Your task to perform on an android device: see tabs open on other devices in the chrome app Image 0: 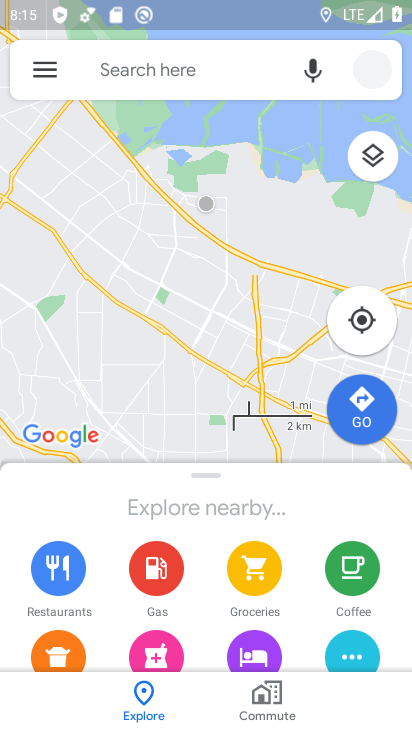
Step 0: press home button
Your task to perform on an android device: see tabs open on other devices in the chrome app Image 1: 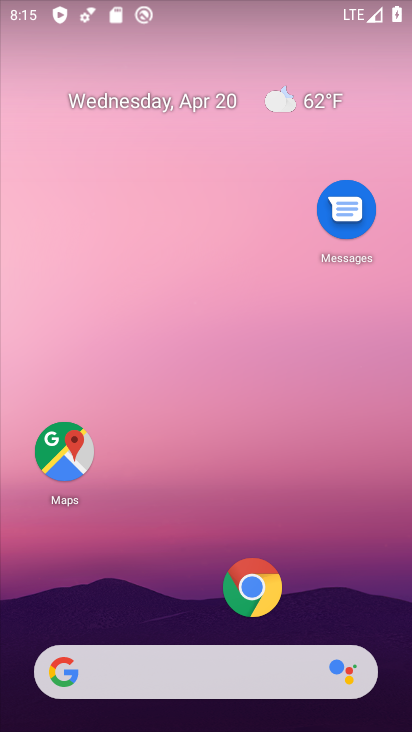
Step 1: drag from (193, 667) to (306, 238)
Your task to perform on an android device: see tabs open on other devices in the chrome app Image 2: 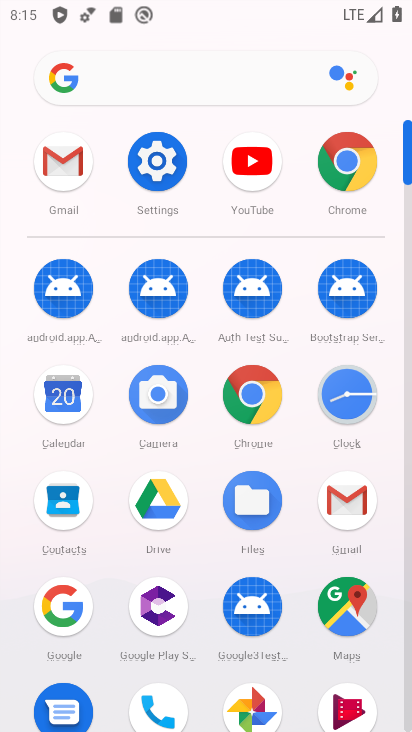
Step 2: click (349, 175)
Your task to perform on an android device: see tabs open on other devices in the chrome app Image 3: 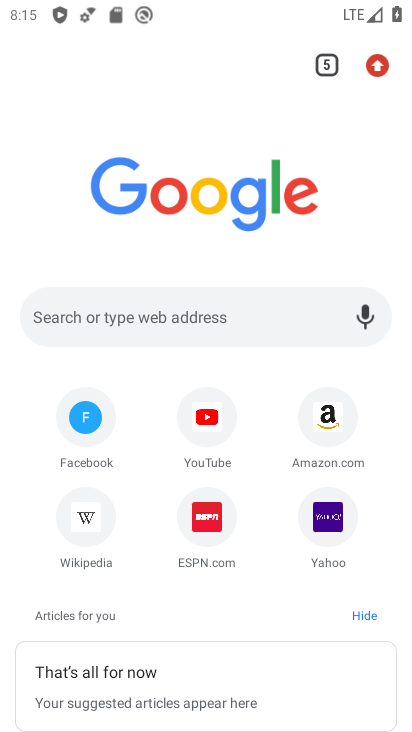
Step 3: click (380, 75)
Your task to perform on an android device: see tabs open on other devices in the chrome app Image 4: 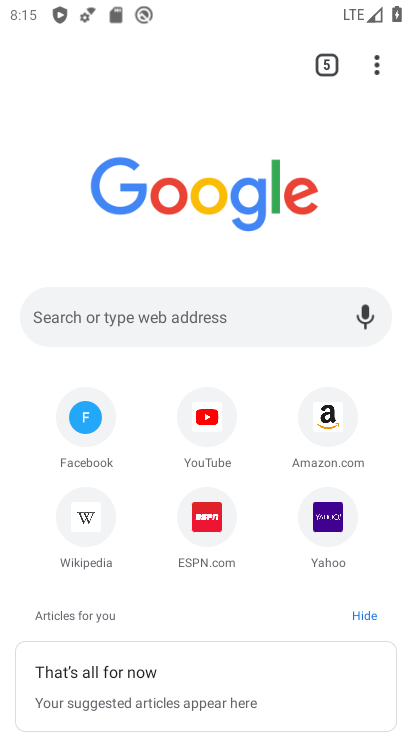
Step 4: click (370, 76)
Your task to perform on an android device: see tabs open on other devices in the chrome app Image 5: 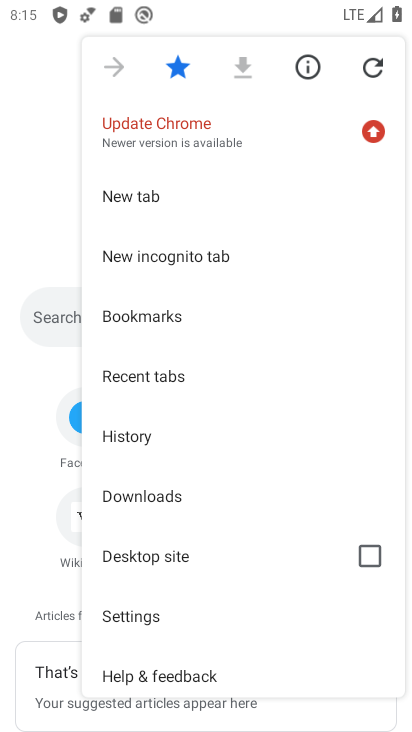
Step 5: click (165, 374)
Your task to perform on an android device: see tabs open on other devices in the chrome app Image 6: 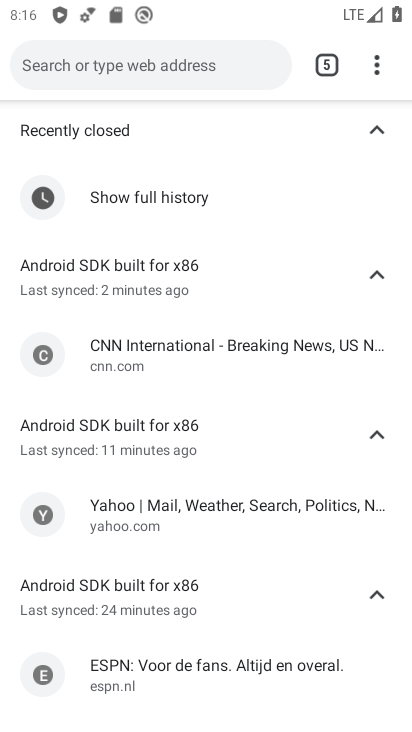
Step 6: task complete